Your task to perform on an android device: Go to CNN.com Image 0: 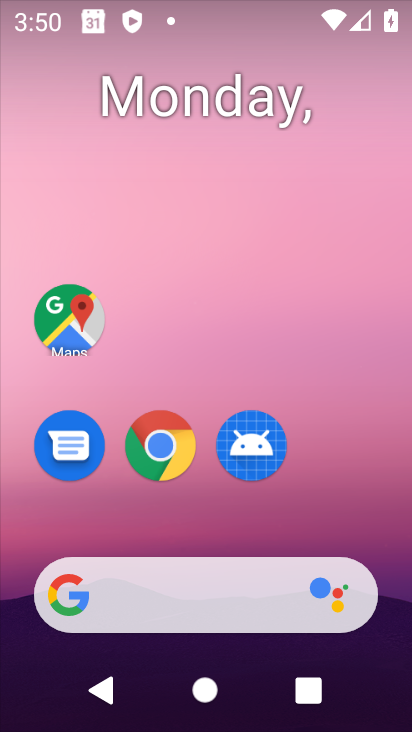
Step 0: click (167, 454)
Your task to perform on an android device: Go to CNN.com Image 1: 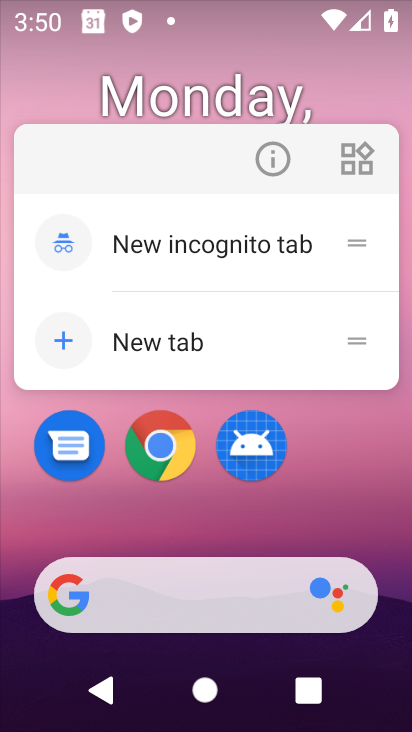
Step 1: click (167, 456)
Your task to perform on an android device: Go to CNN.com Image 2: 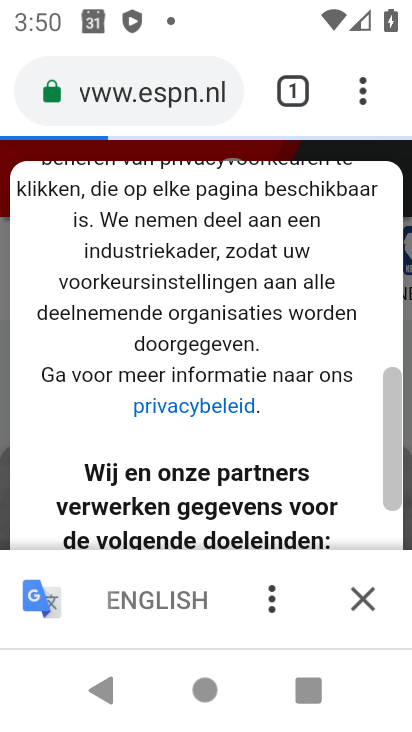
Step 2: click (378, 95)
Your task to perform on an android device: Go to CNN.com Image 3: 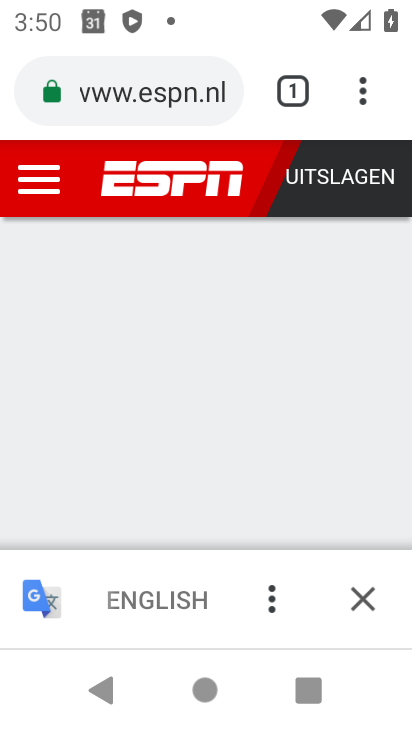
Step 3: drag from (359, 83) to (116, 234)
Your task to perform on an android device: Go to CNN.com Image 4: 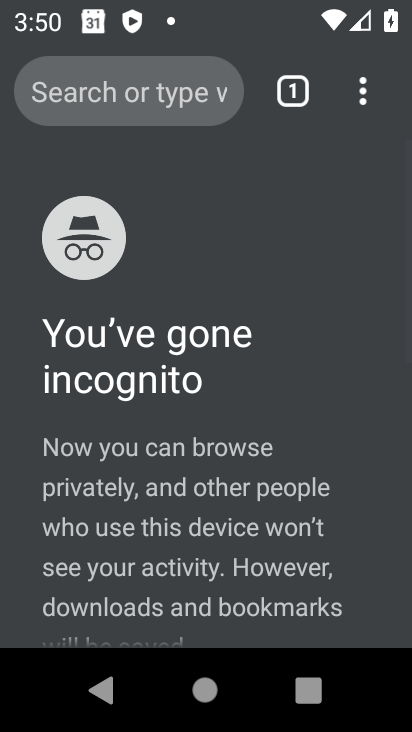
Step 4: drag from (361, 94) to (405, 145)
Your task to perform on an android device: Go to CNN.com Image 5: 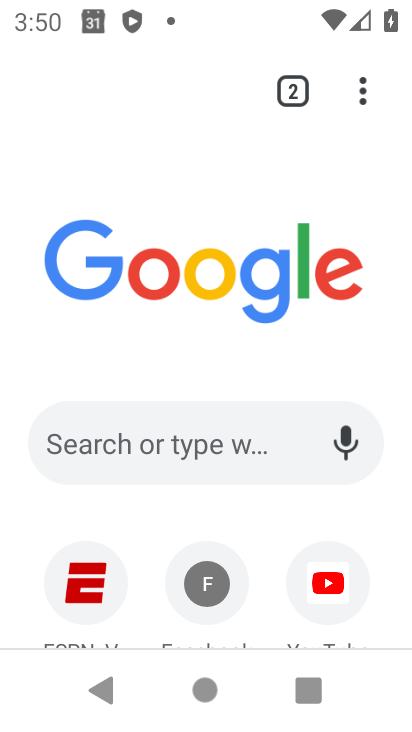
Step 5: drag from (234, 529) to (221, 193)
Your task to perform on an android device: Go to CNN.com Image 6: 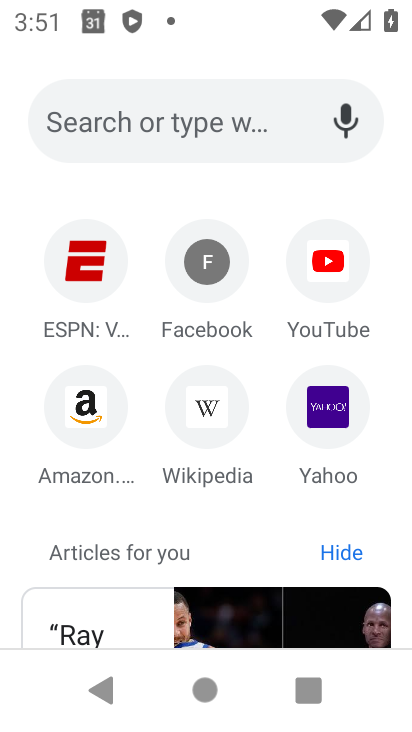
Step 6: click (235, 141)
Your task to perform on an android device: Go to CNN.com Image 7: 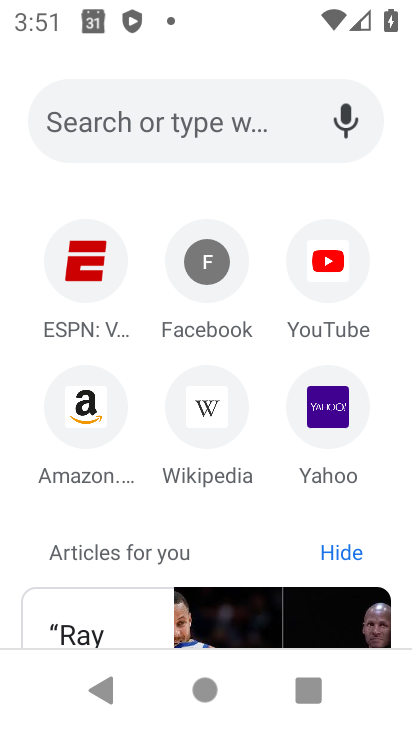
Step 7: click (231, 123)
Your task to perform on an android device: Go to CNN.com Image 8: 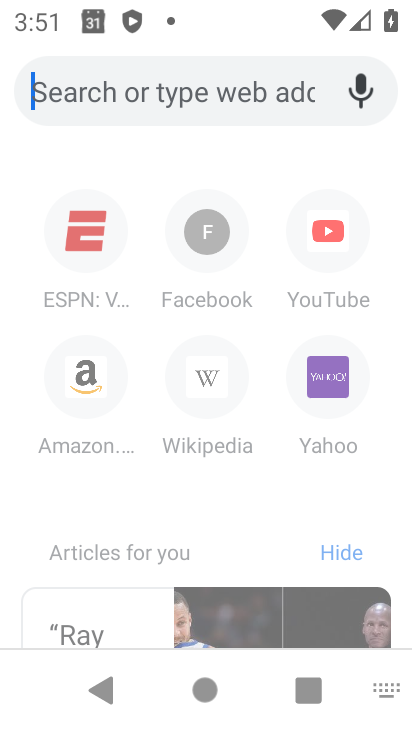
Step 8: click (231, 123)
Your task to perform on an android device: Go to CNN.com Image 9: 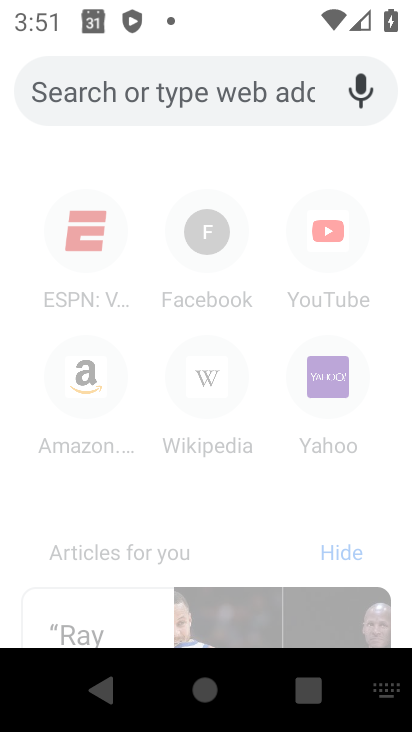
Step 9: type "CNN.com"
Your task to perform on an android device: Go to CNN.com Image 10: 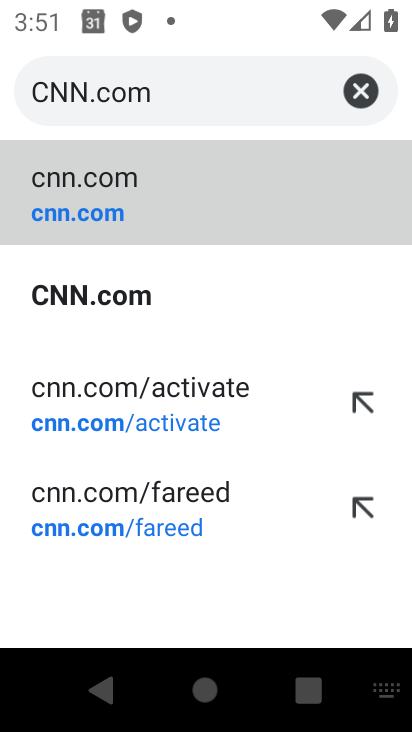
Step 10: click (115, 187)
Your task to perform on an android device: Go to CNN.com Image 11: 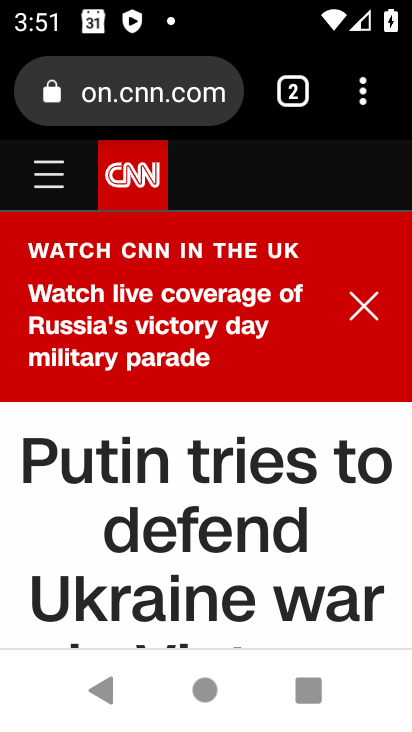
Step 11: task complete